Your task to perform on an android device: add a contact in the contacts app Image 0: 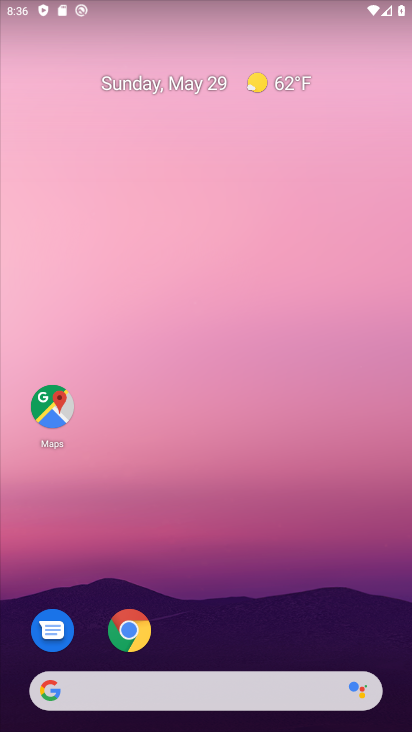
Step 0: drag from (395, 709) to (343, 214)
Your task to perform on an android device: add a contact in the contacts app Image 1: 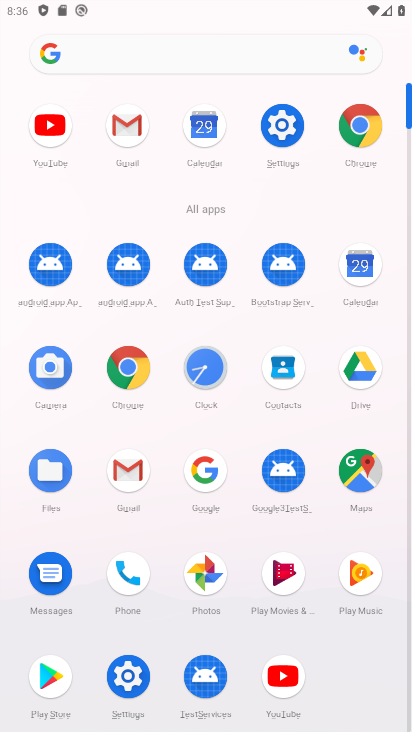
Step 1: click (285, 369)
Your task to perform on an android device: add a contact in the contacts app Image 2: 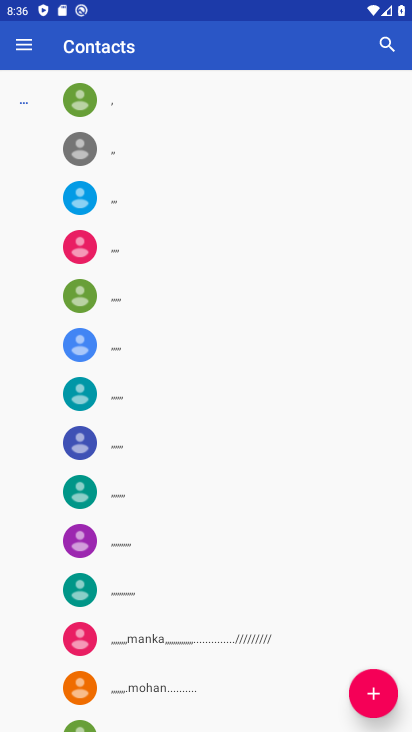
Step 2: click (366, 696)
Your task to perform on an android device: add a contact in the contacts app Image 3: 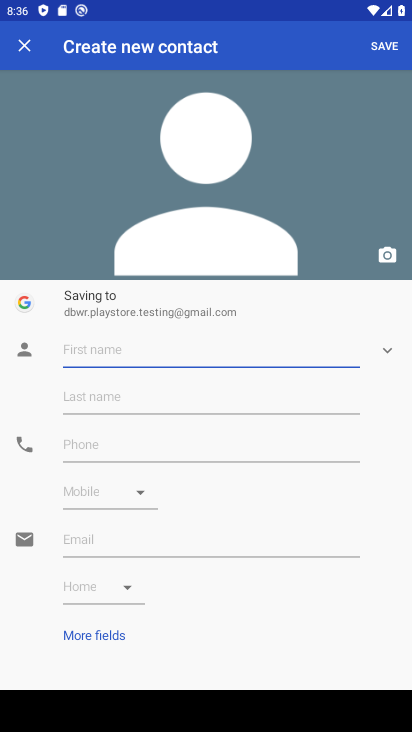
Step 3: type ""
Your task to perform on an android device: add a contact in the contacts app Image 4: 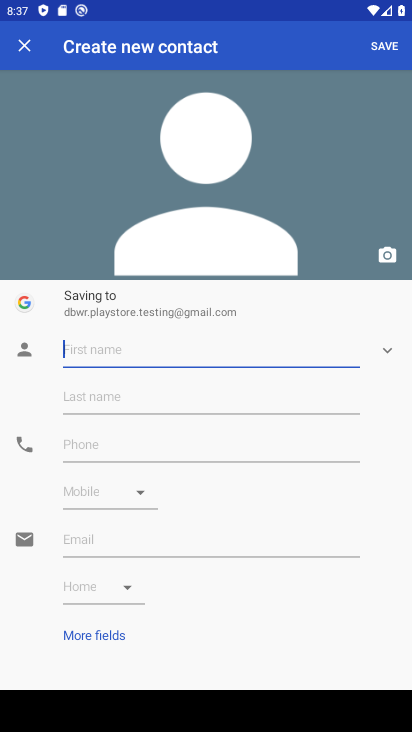
Step 4: type "fdghtffkf"
Your task to perform on an android device: add a contact in the contacts app Image 5: 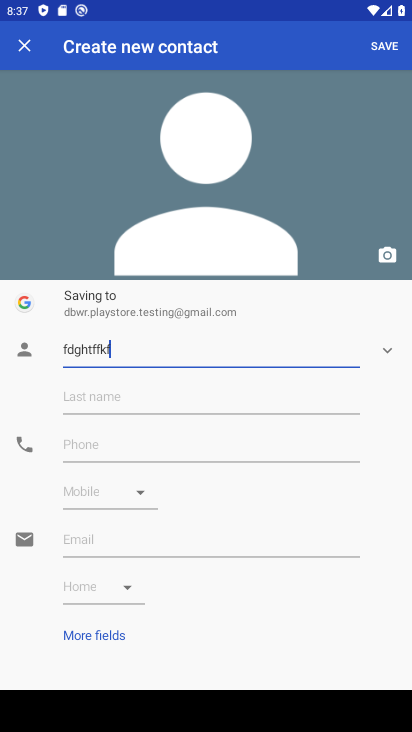
Step 5: click (181, 407)
Your task to perform on an android device: add a contact in the contacts app Image 6: 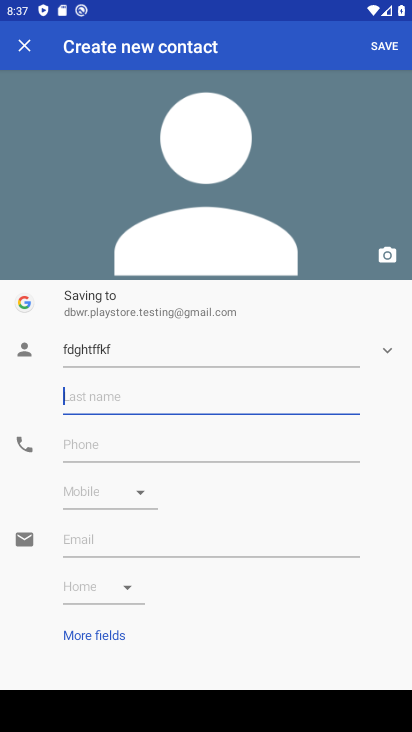
Step 6: type "hfhgfgfj"
Your task to perform on an android device: add a contact in the contacts app Image 7: 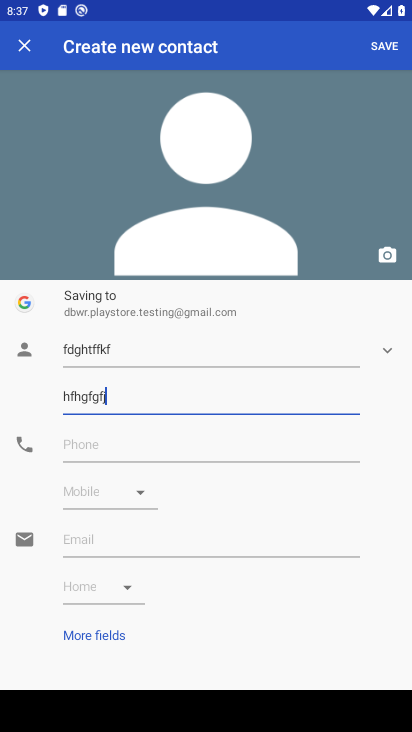
Step 7: click (213, 446)
Your task to perform on an android device: add a contact in the contacts app Image 8: 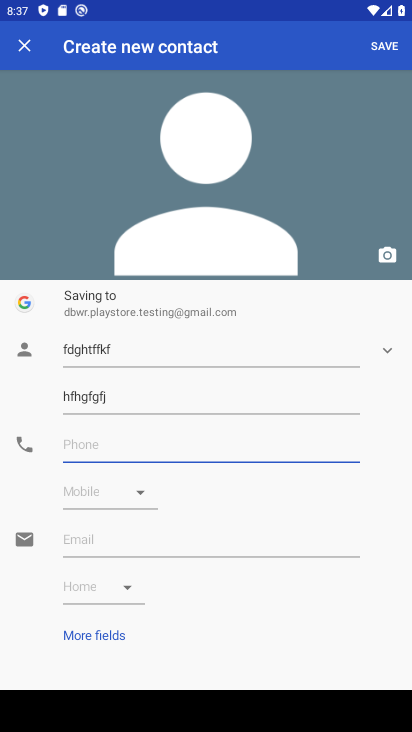
Step 8: type "547578588656"
Your task to perform on an android device: add a contact in the contacts app Image 9: 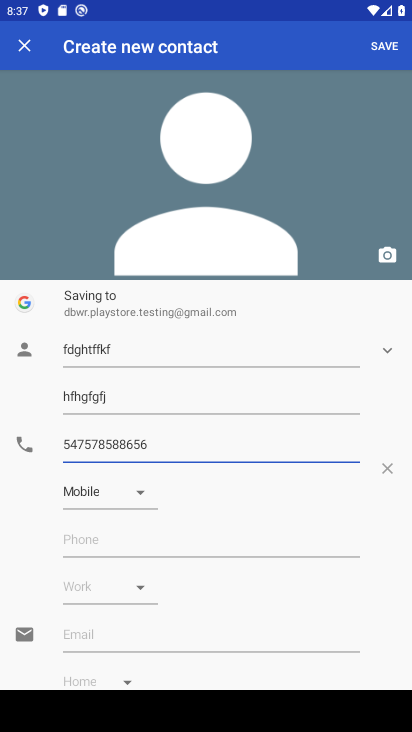
Step 9: click (378, 45)
Your task to perform on an android device: add a contact in the contacts app Image 10: 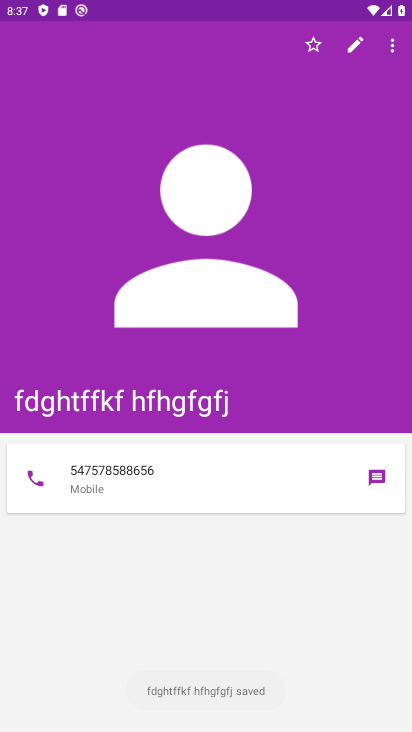
Step 10: task complete